Your task to perform on an android device: Go to sound settings Image 0: 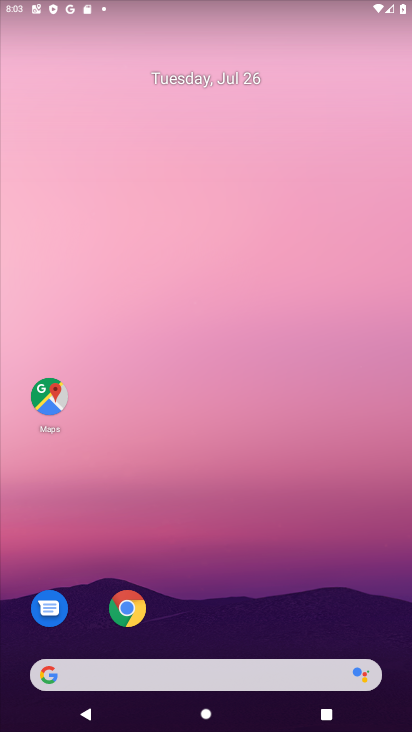
Step 0: drag from (252, 701) to (175, 164)
Your task to perform on an android device: Go to sound settings Image 1: 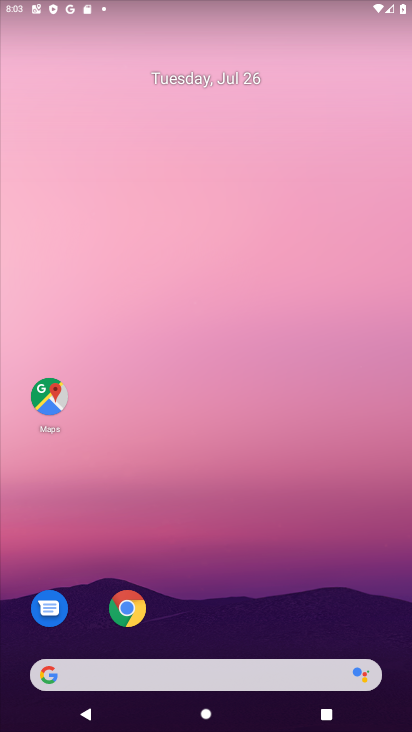
Step 1: drag from (294, 588) to (224, 266)
Your task to perform on an android device: Go to sound settings Image 2: 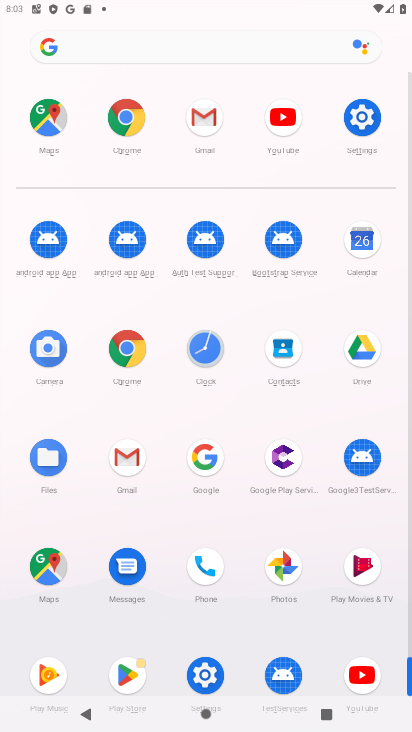
Step 2: click (357, 129)
Your task to perform on an android device: Go to sound settings Image 3: 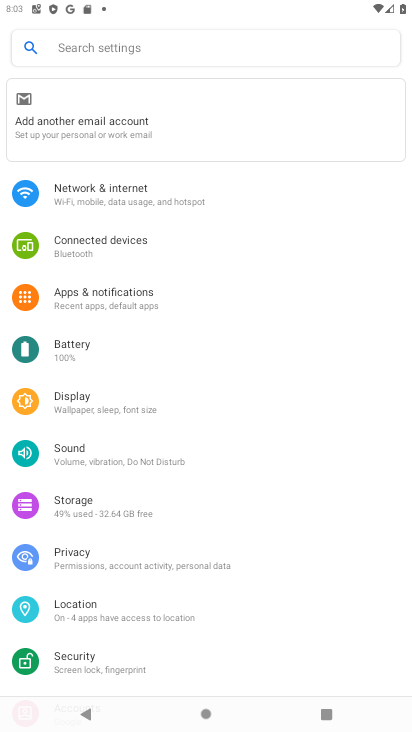
Step 3: click (91, 457)
Your task to perform on an android device: Go to sound settings Image 4: 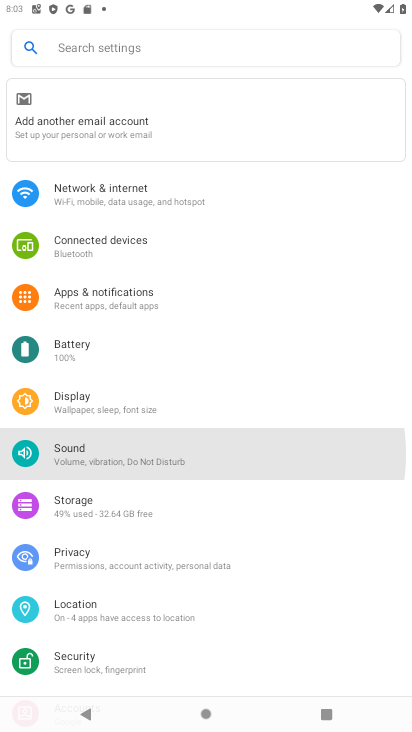
Step 4: click (90, 455)
Your task to perform on an android device: Go to sound settings Image 5: 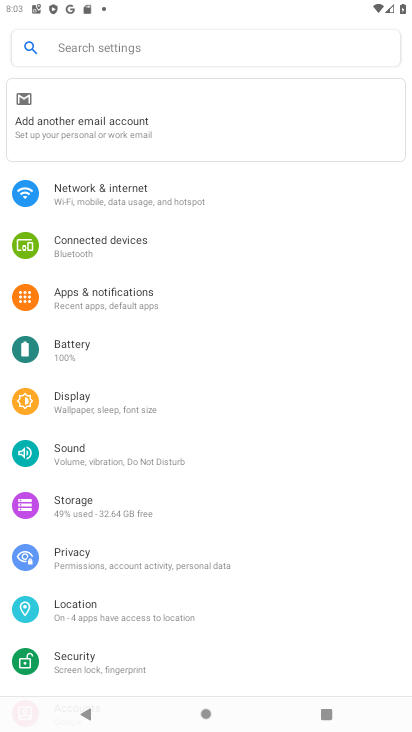
Step 5: click (90, 455)
Your task to perform on an android device: Go to sound settings Image 6: 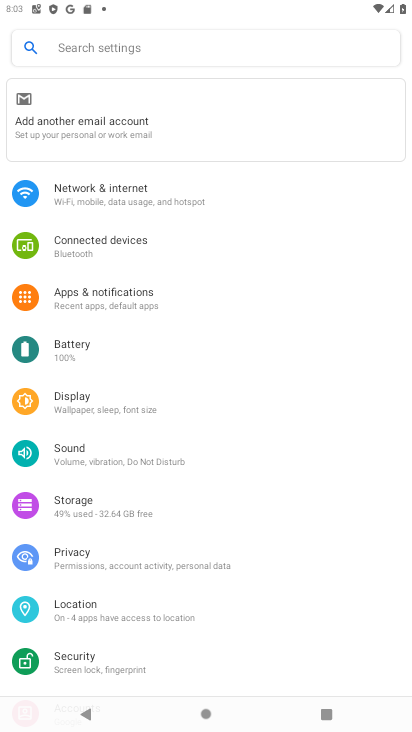
Step 6: click (90, 455)
Your task to perform on an android device: Go to sound settings Image 7: 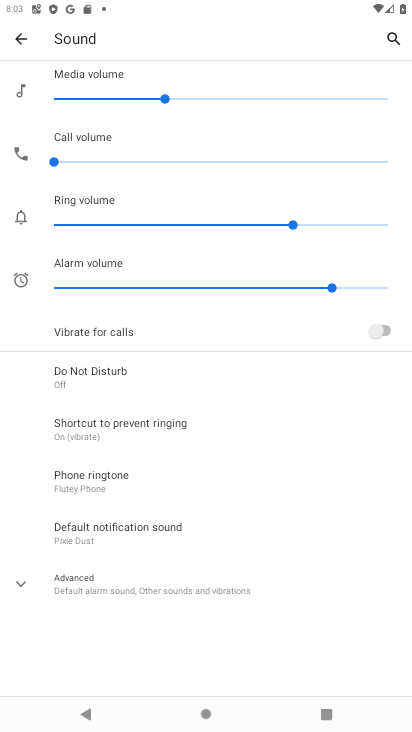
Step 7: task complete